Your task to perform on an android device: turn on sleep mode Image 0: 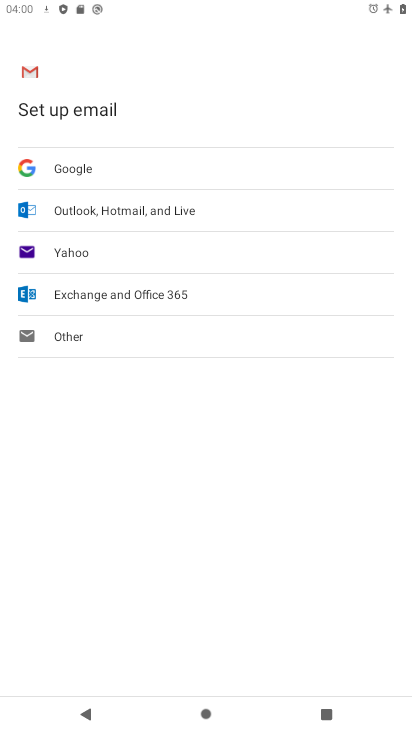
Step 0: press home button
Your task to perform on an android device: turn on sleep mode Image 1: 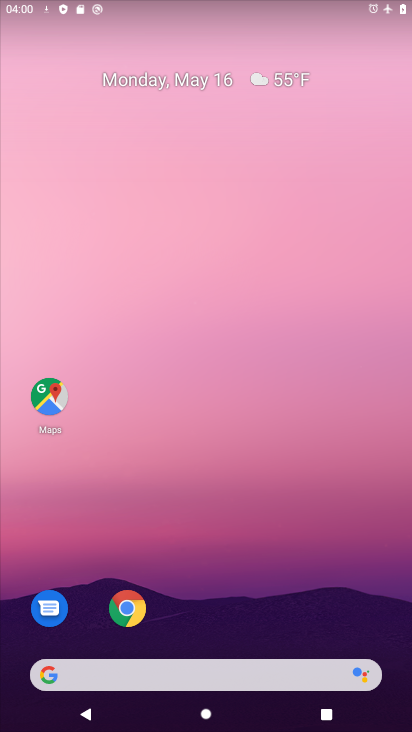
Step 1: drag from (249, 618) to (242, 201)
Your task to perform on an android device: turn on sleep mode Image 2: 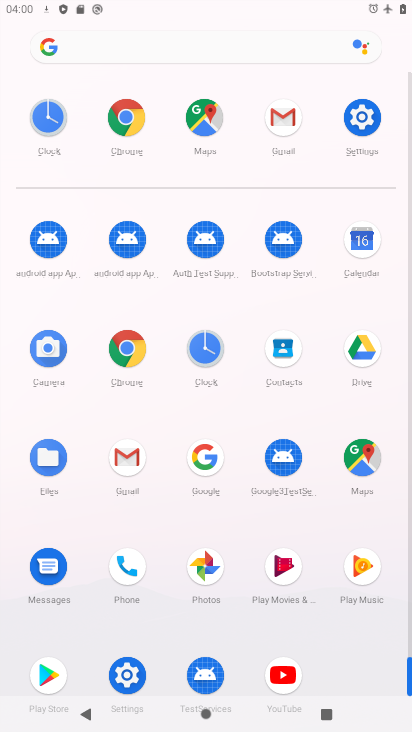
Step 2: click (354, 140)
Your task to perform on an android device: turn on sleep mode Image 3: 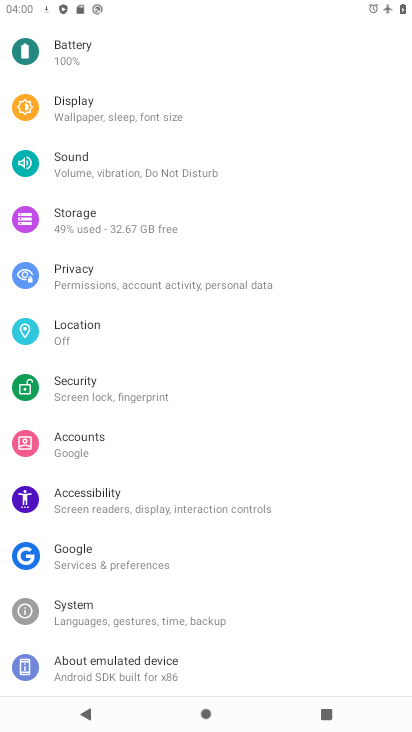
Step 3: click (112, 115)
Your task to perform on an android device: turn on sleep mode Image 4: 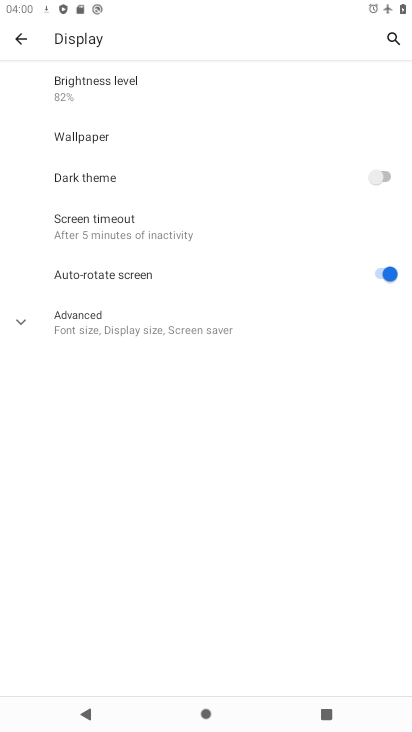
Step 4: click (118, 223)
Your task to perform on an android device: turn on sleep mode Image 5: 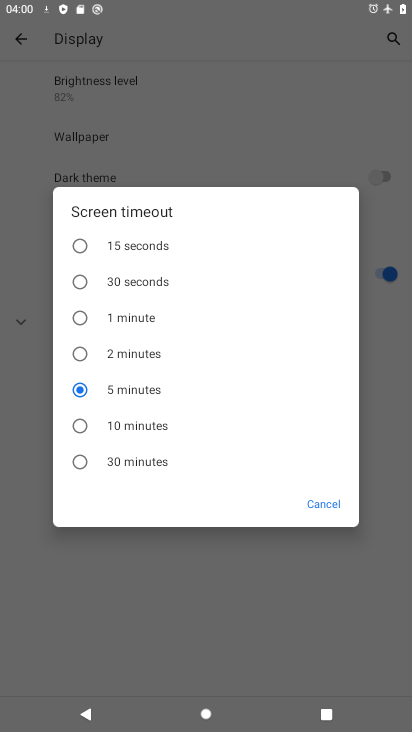
Step 5: click (140, 460)
Your task to perform on an android device: turn on sleep mode Image 6: 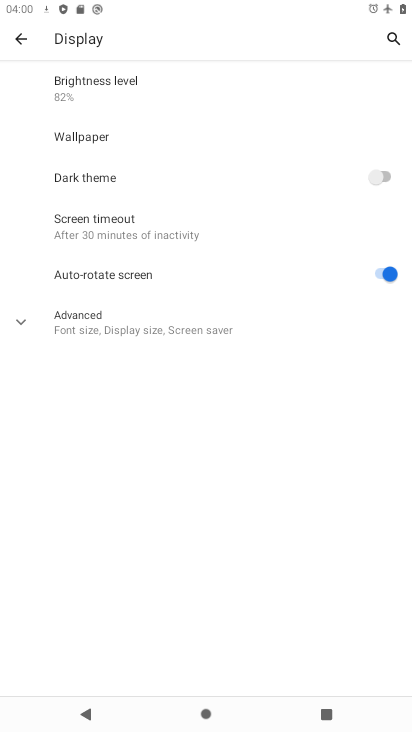
Step 6: task complete